Your task to perform on an android device: Go to wifi settings Image 0: 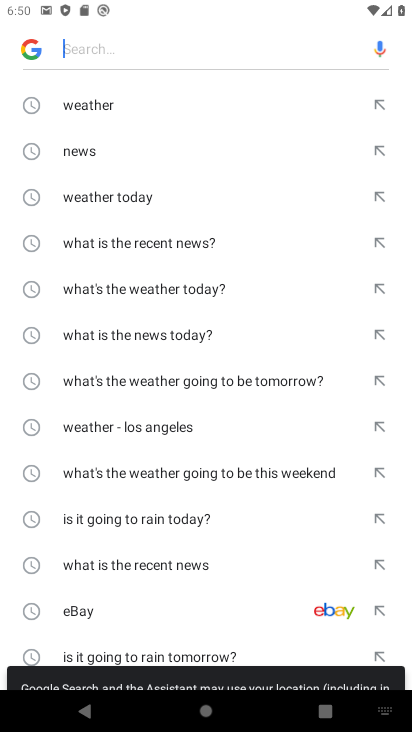
Step 0: press back button
Your task to perform on an android device: Go to wifi settings Image 1: 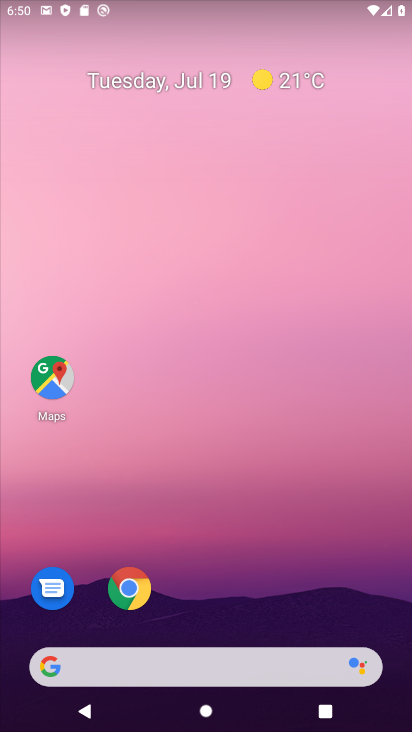
Step 1: drag from (184, 583) to (208, 119)
Your task to perform on an android device: Go to wifi settings Image 2: 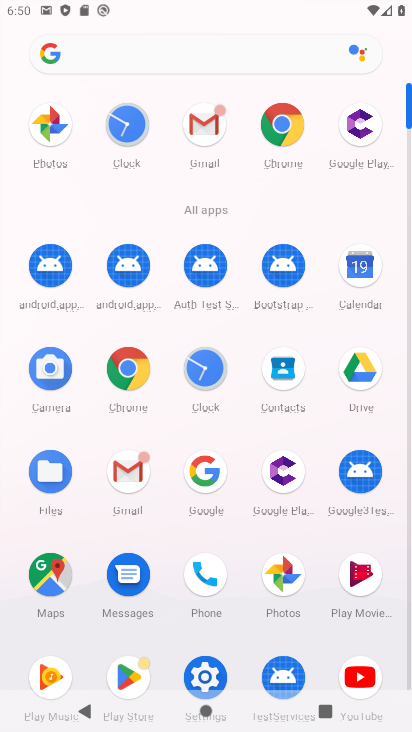
Step 2: click (215, 665)
Your task to perform on an android device: Go to wifi settings Image 3: 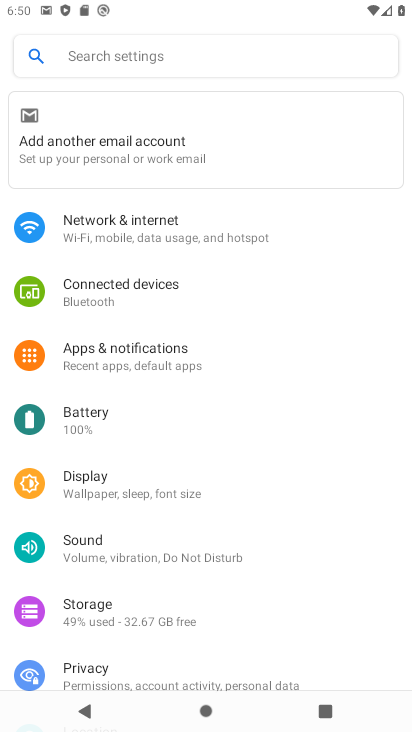
Step 3: click (206, 249)
Your task to perform on an android device: Go to wifi settings Image 4: 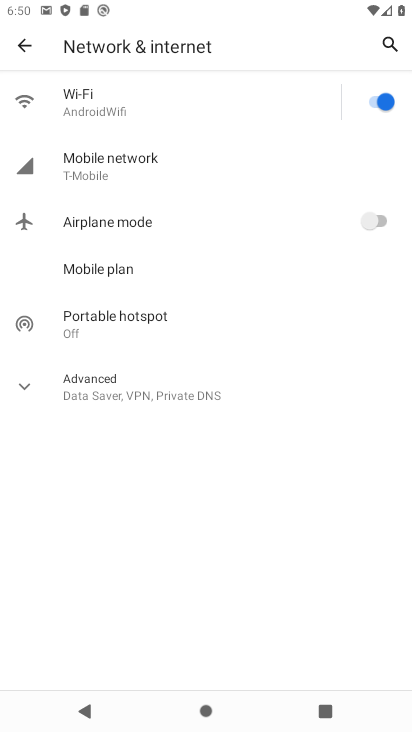
Step 4: click (134, 120)
Your task to perform on an android device: Go to wifi settings Image 5: 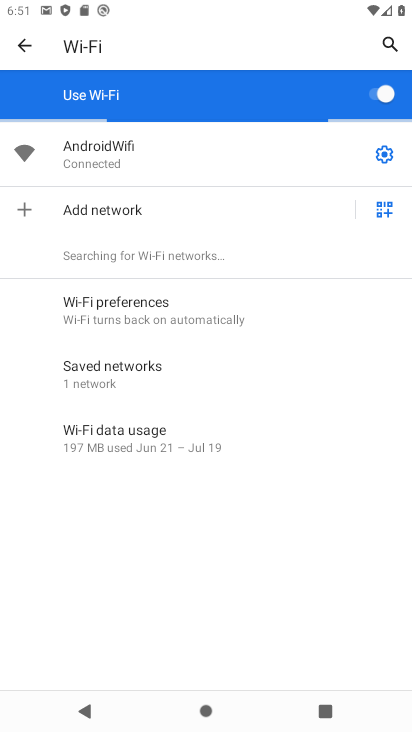
Step 5: task complete